Your task to perform on an android device: turn pop-ups off in chrome Image 0: 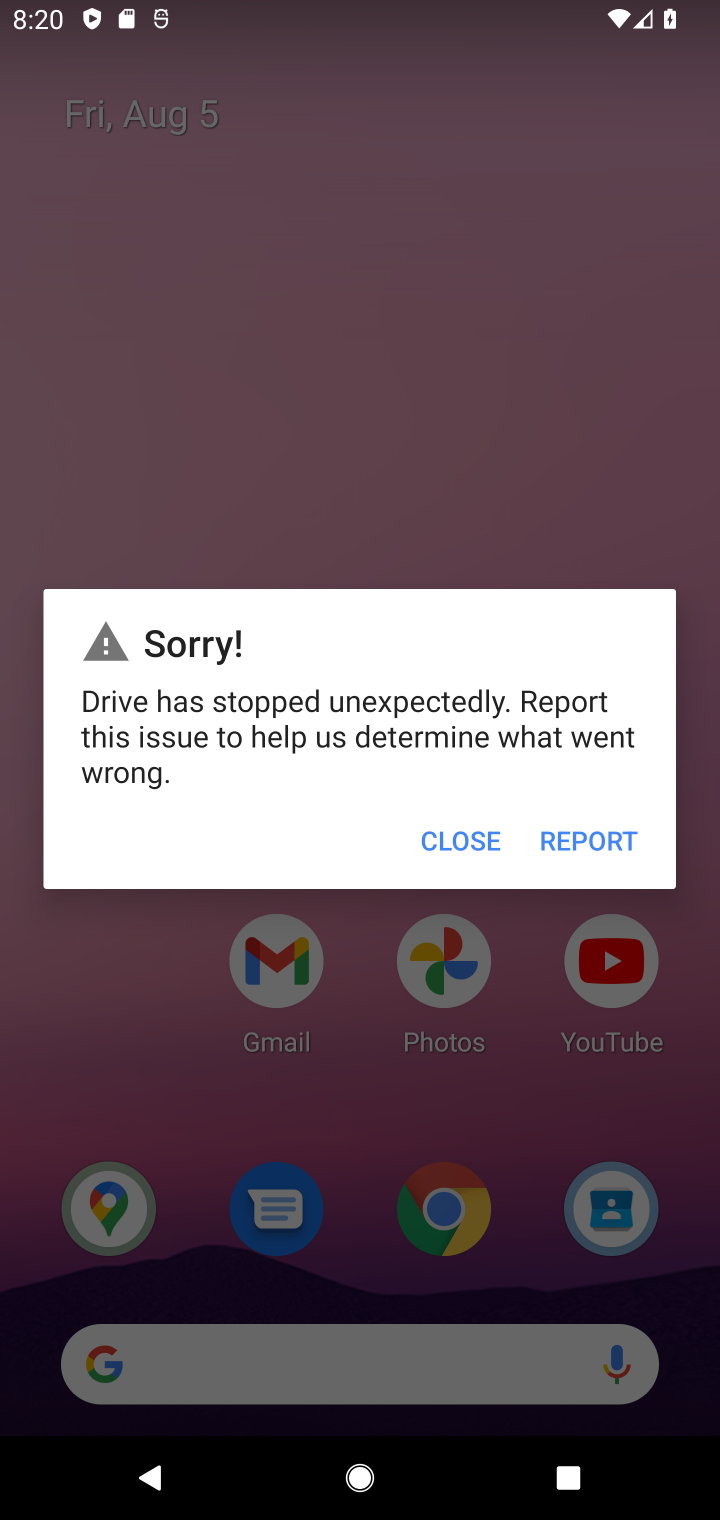
Step 0: click (431, 832)
Your task to perform on an android device: turn pop-ups off in chrome Image 1: 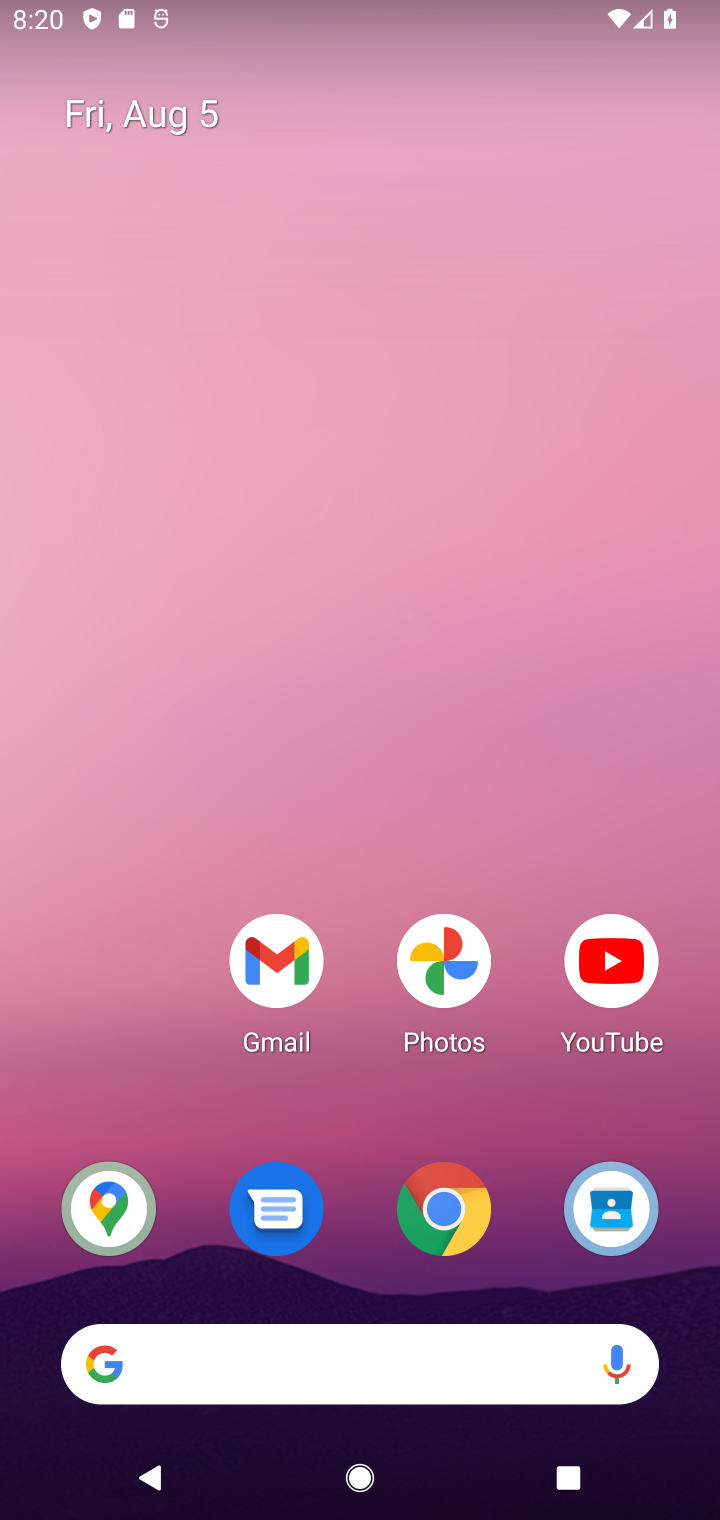
Step 1: click (472, 1216)
Your task to perform on an android device: turn pop-ups off in chrome Image 2: 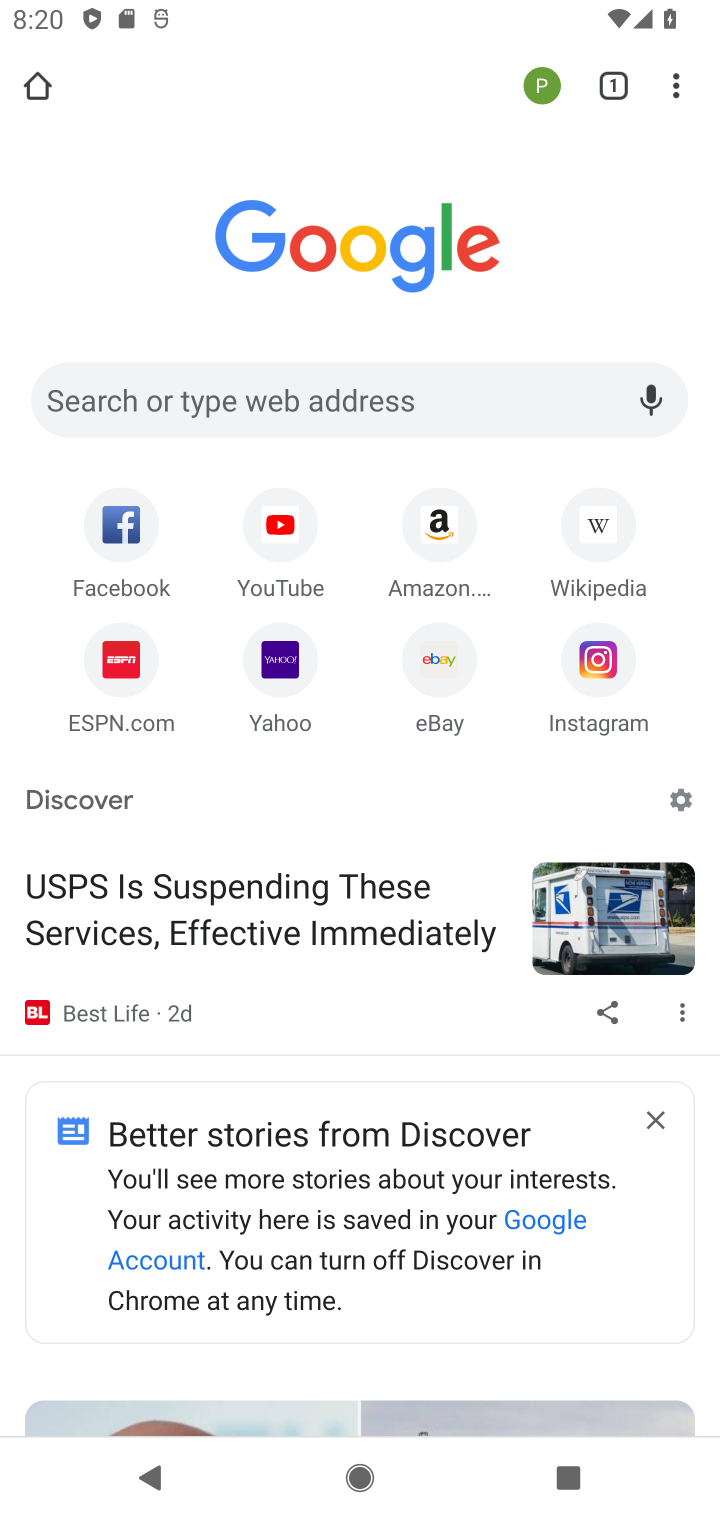
Step 2: click (668, 104)
Your task to perform on an android device: turn pop-ups off in chrome Image 3: 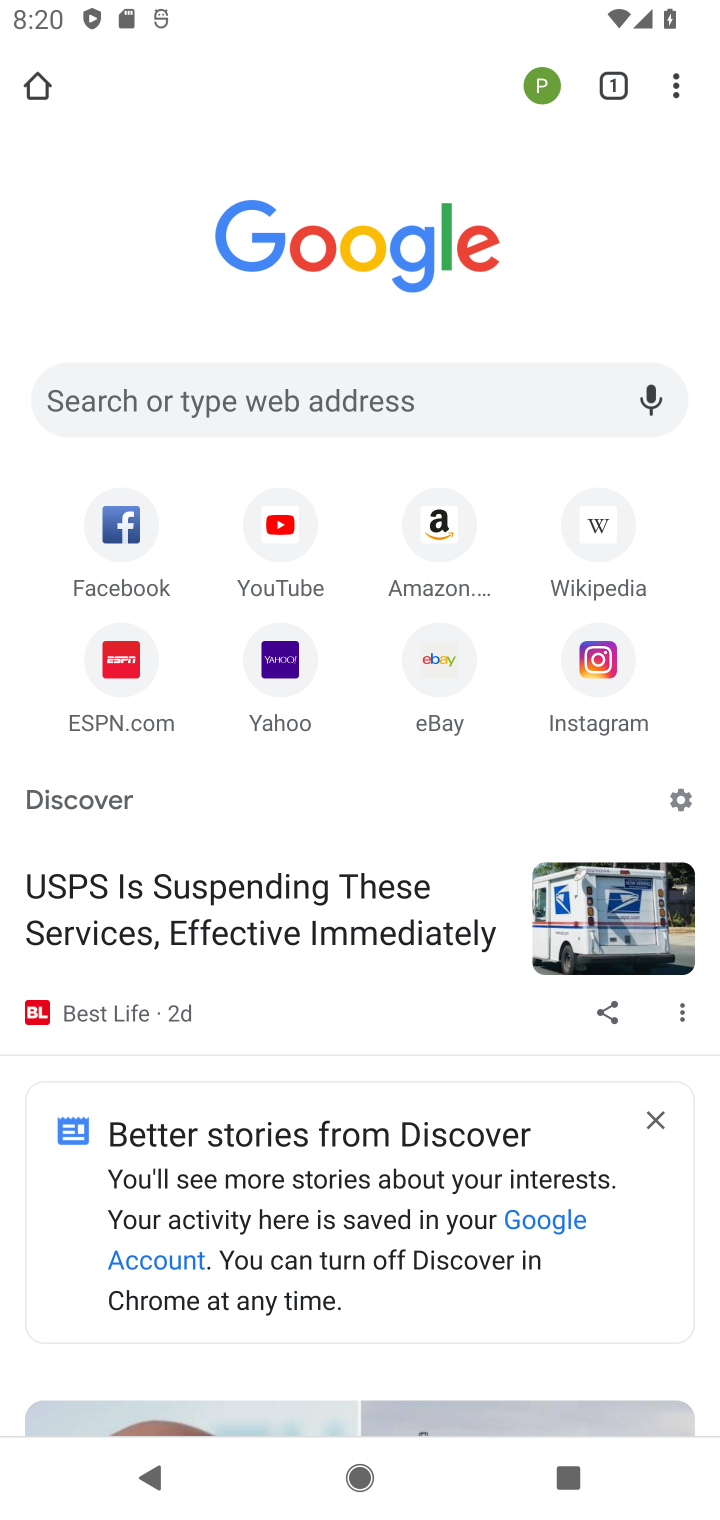
Step 3: click (691, 93)
Your task to perform on an android device: turn pop-ups off in chrome Image 4: 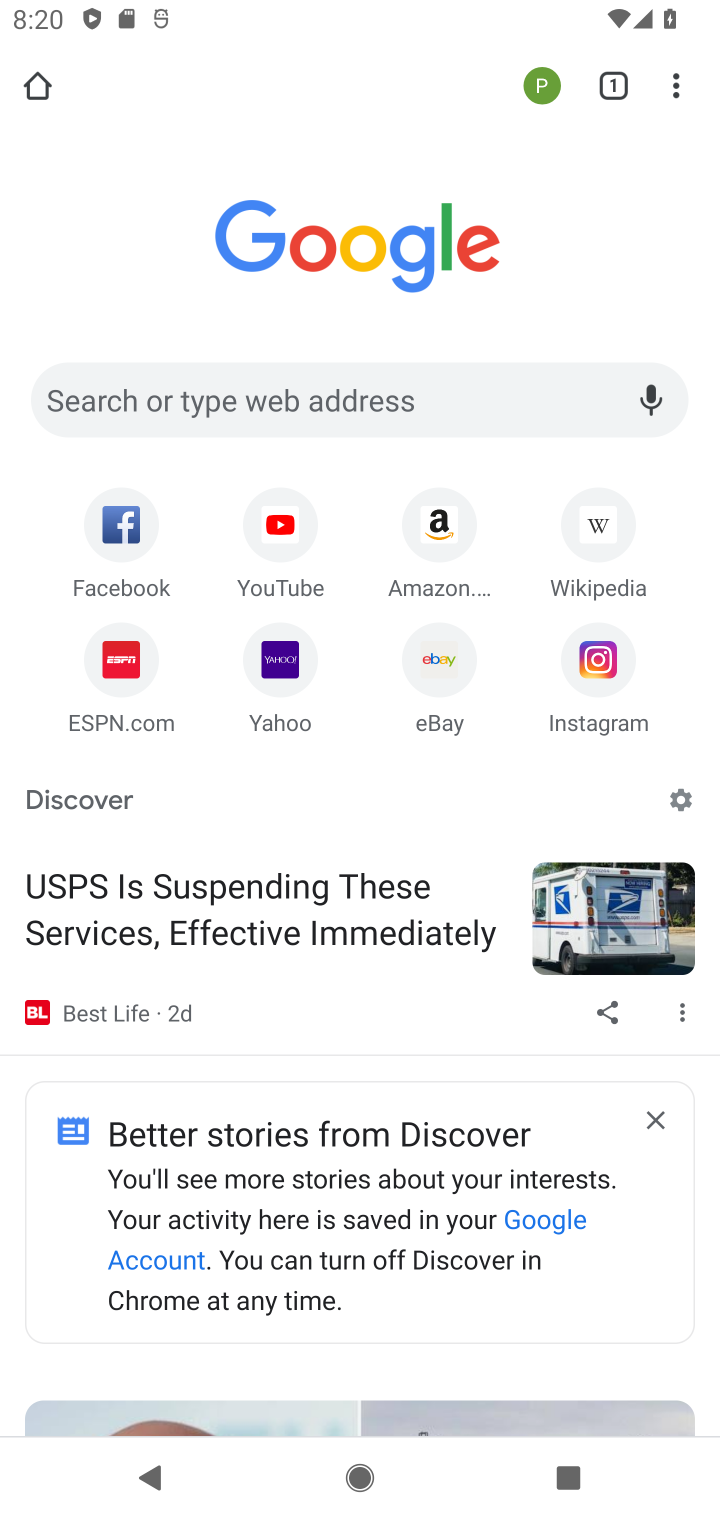
Step 4: click (670, 81)
Your task to perform on an android device: turn pop-ups off in chrome Image 5: 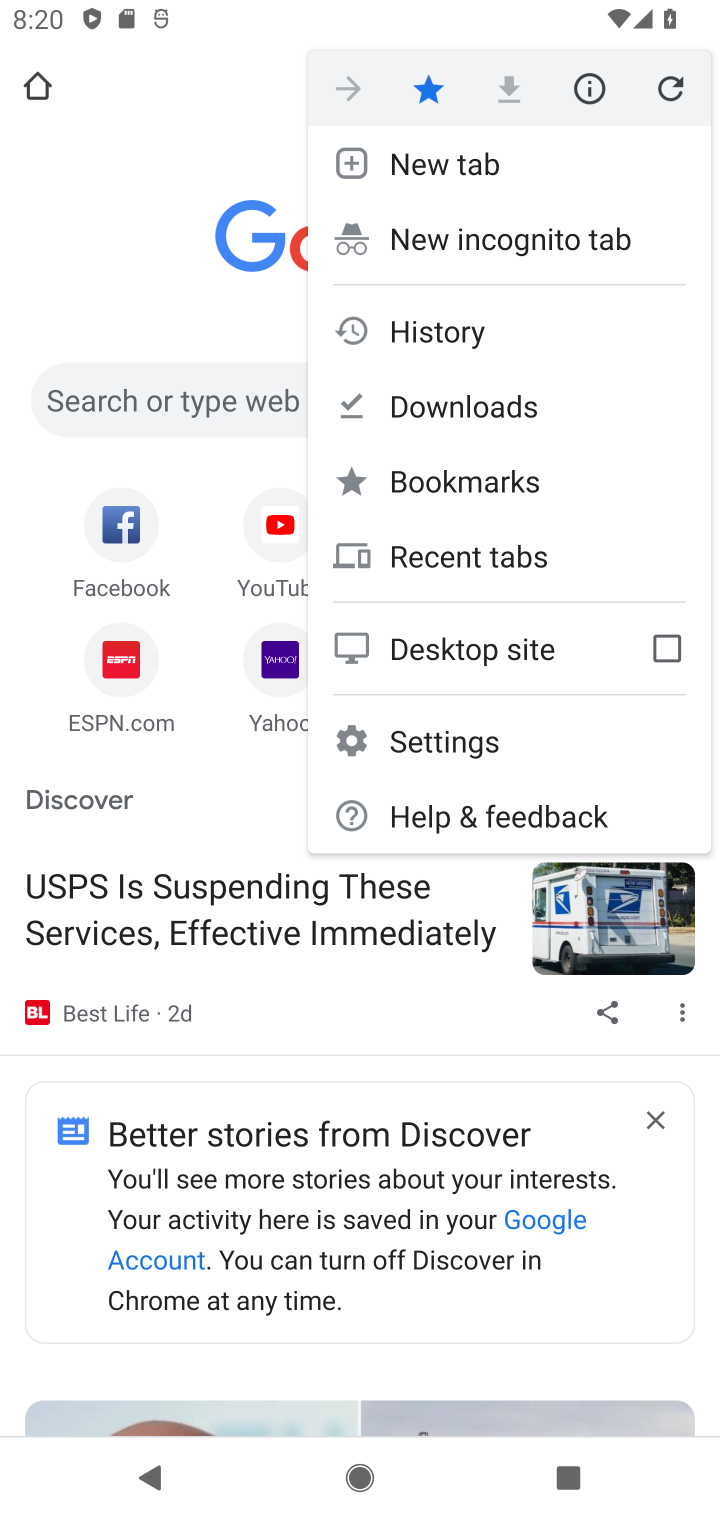
Step 5: click (472, 749)
Your task to perform on an android device: turn pop-ups off in chrome Image 6: 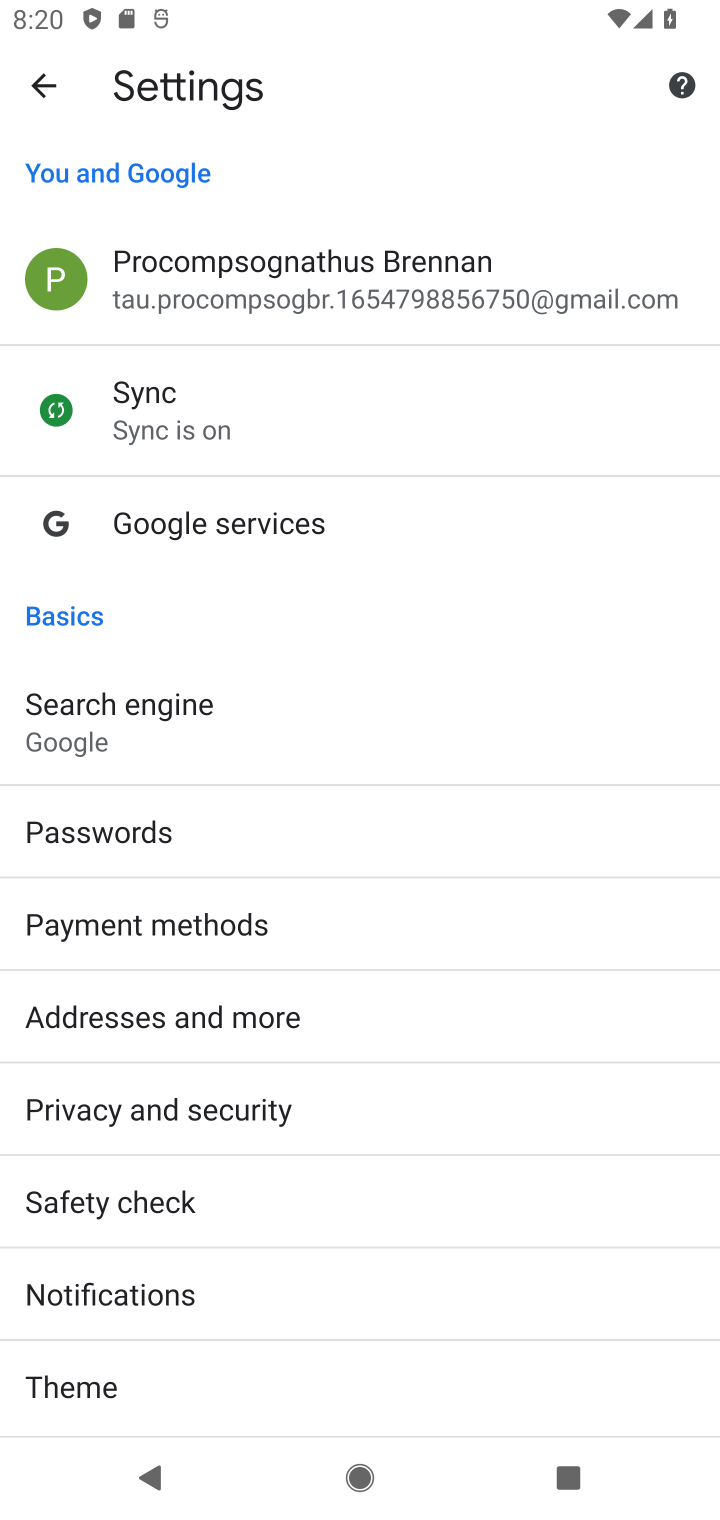
Step 6: drag from (445, 1384) to (411, 426)
Your task to perform on an android device: turn pop-ups off in chrome Image 7: 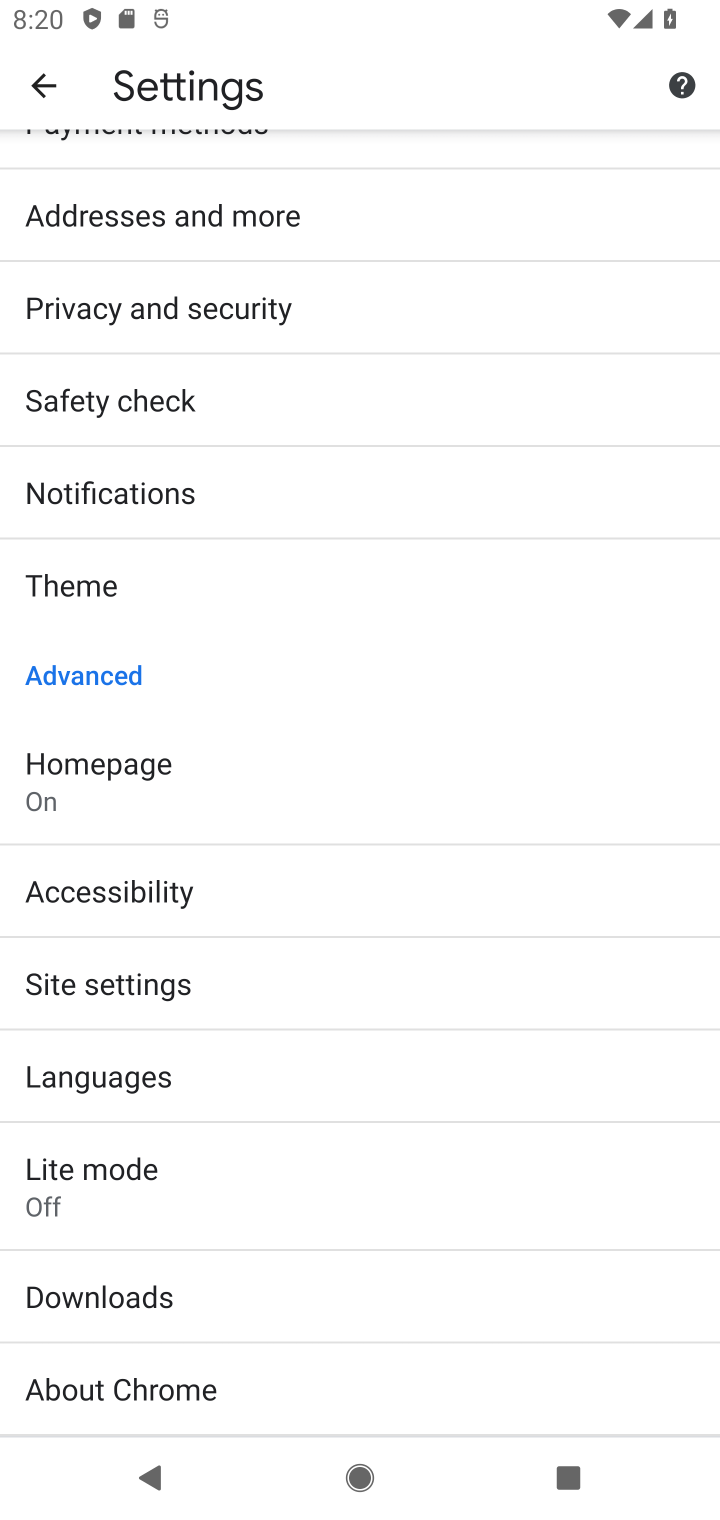
Step 7: click (280, 999)
Your task to perform on an android device: turn pop-ups off in chrome Image 8: 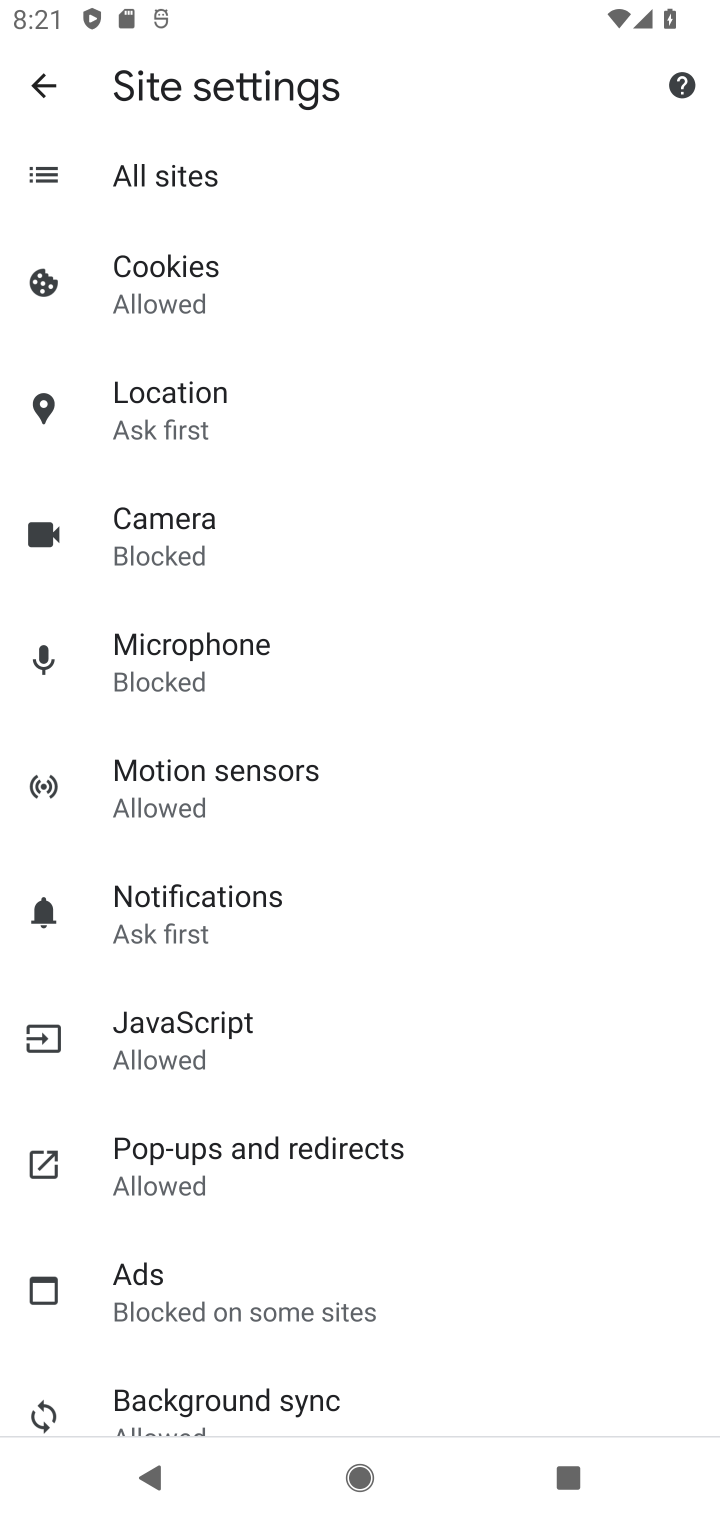
Step 8: click (404, 1180)
Your task to perform on an android device: turn pop-ups off in chrome Image 9: 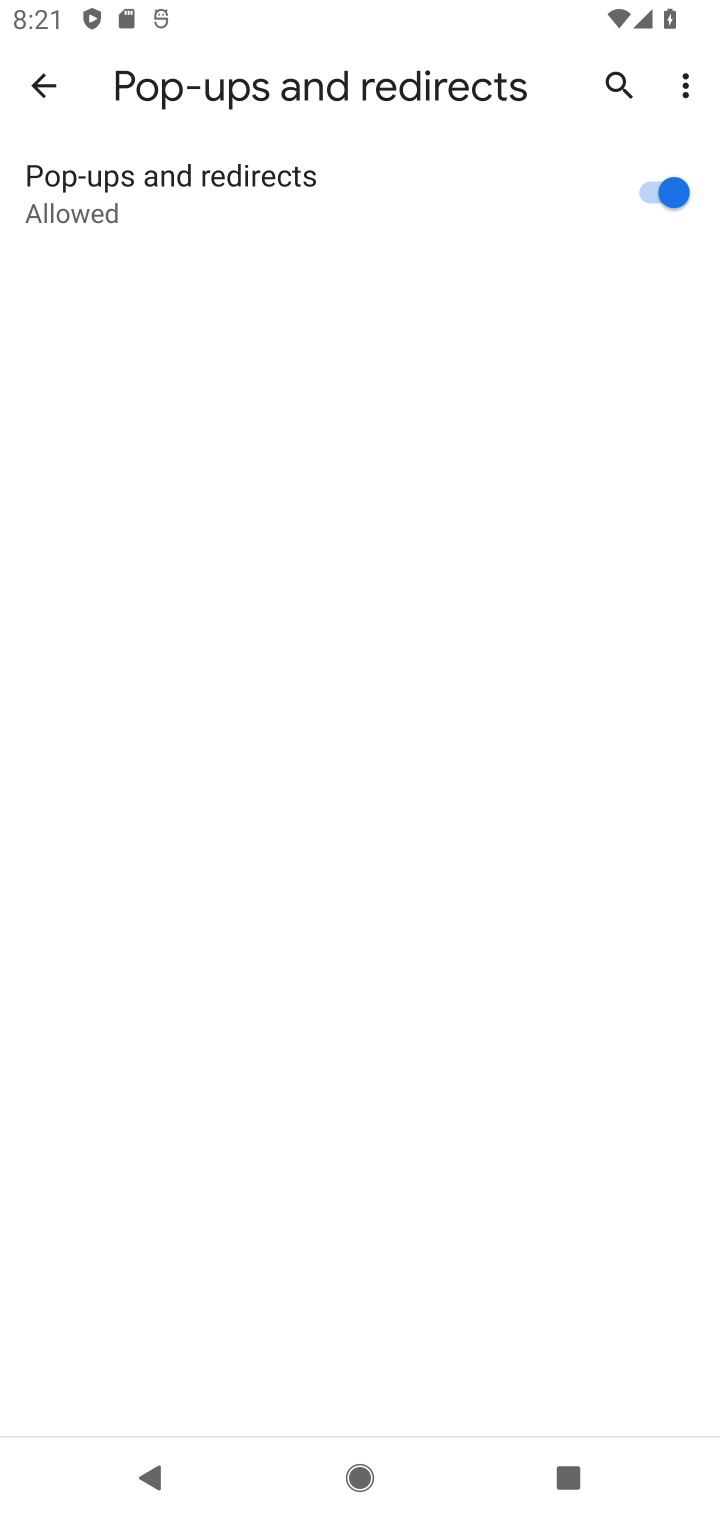
Step 9: click (644, 175)
Your task to perform on an android device: turn pop-ups off in chrome Image 10: 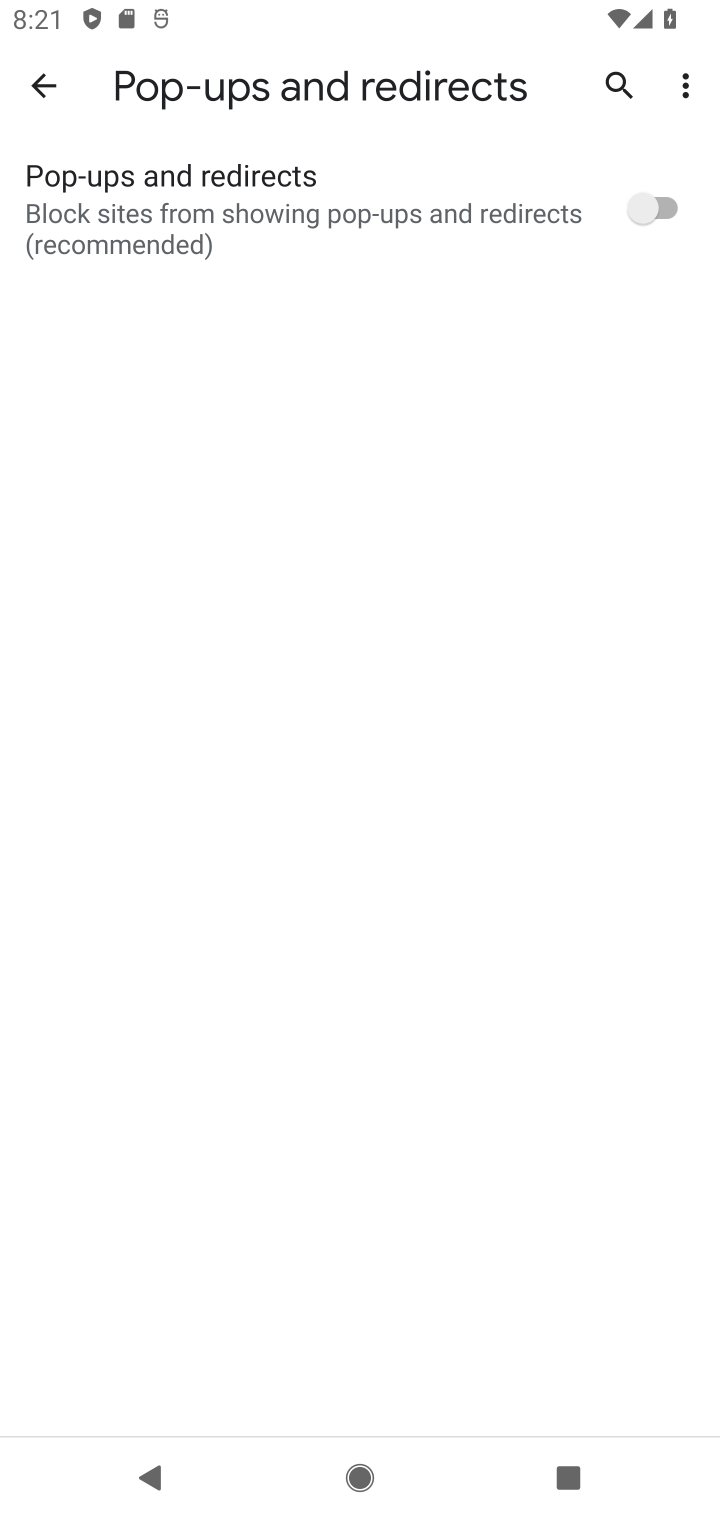
Step 10: task complete